Your task to perform on an android device: search for starred emails in the gmail app Image 0: 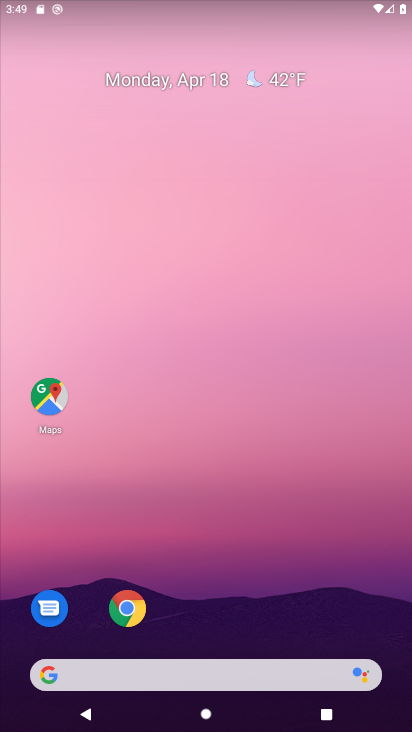
Step 0: drag from (297, 378) to (259, 228)
Your task to perform on an android device: search for starred emails in the gmail app Image 1: 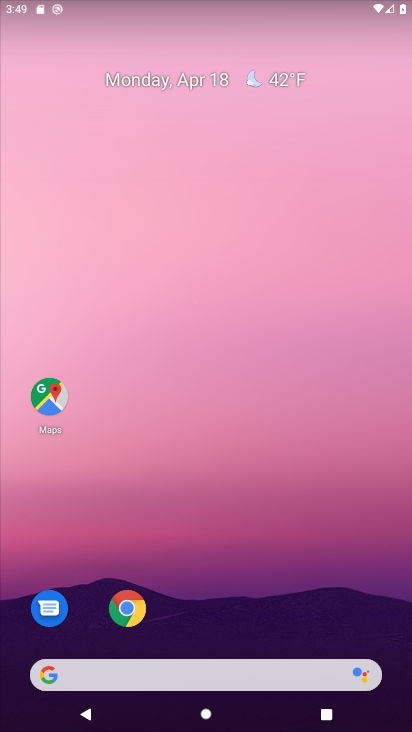
Step 1: drag from (350, 614) to (276, 228)
Your task to perform on an android device: search for starred emails in the gmail app Image 2: 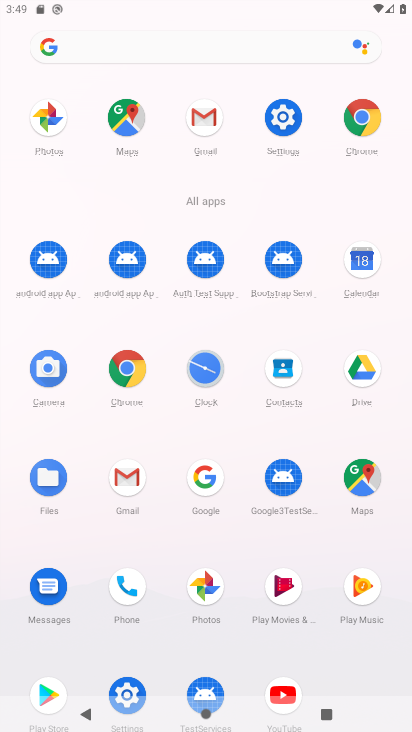
Step 2: click (194, 113)
Your task to perform on an android device: search for starred emails in the gmail app Image 3: 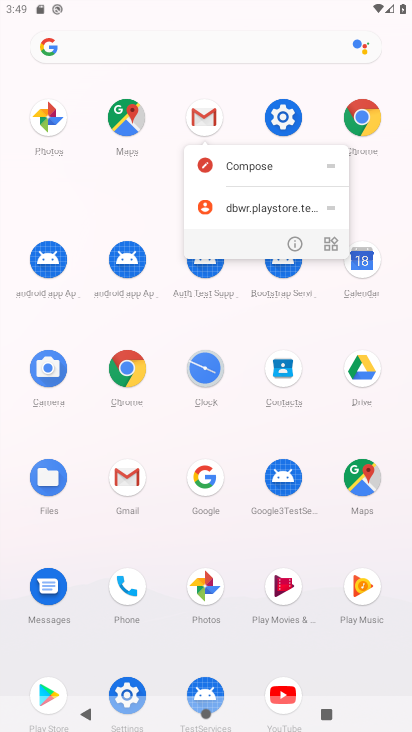
Step 3: click (196, 108)
Your task to perform on an android device: search for starred emails in the gmail app Image 4: 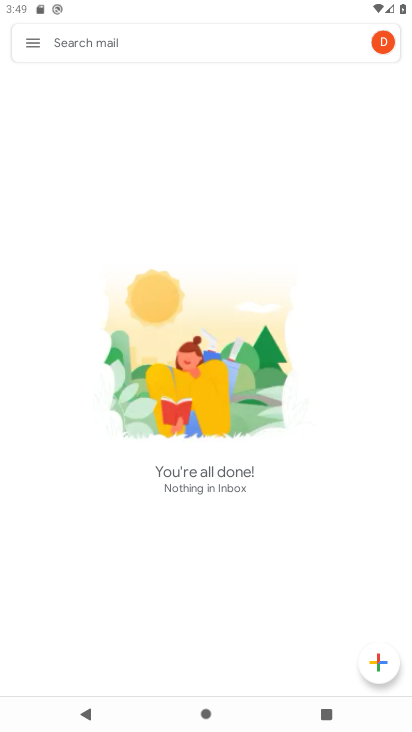
Step 4: click (31, 40)
Your task to perform on an android device: search for starred emails in the gmail app Image 5: 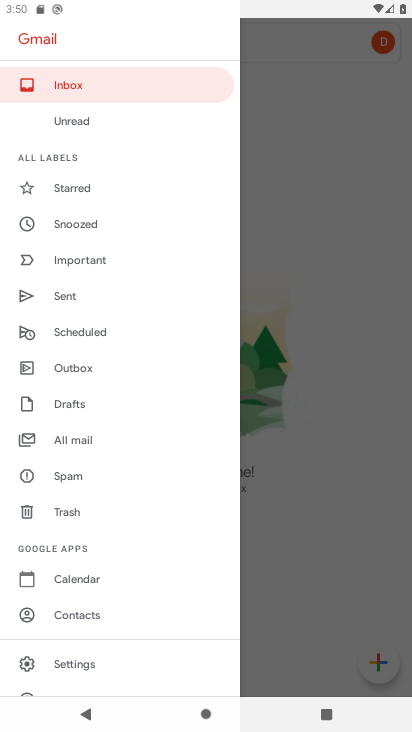
Step 5: click (57, 182)
Your task to perform on an android device: search for starred emails in the gmail app Image 6: 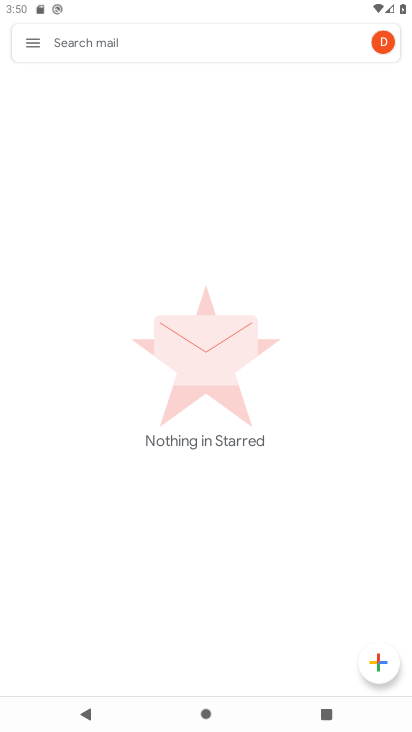
Step 6: task complete